Your task to perform on an android device: open a new tab in the chrome app Image 0: 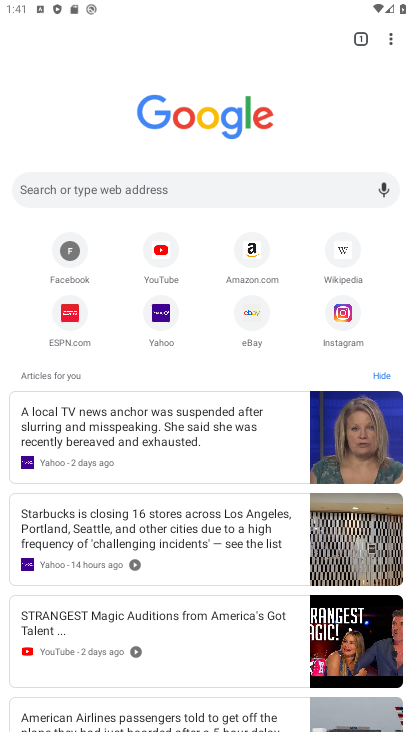
Step 0: click (391, 35)
Your task to perform on an android device: open a new tab in the chrome app Image 1: 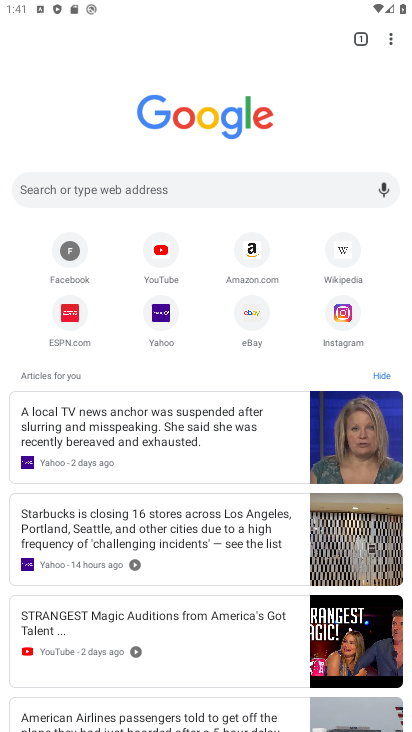
Step 1: click (392, 35)
Your task to perform on an android device: open a new tab in the chrome app Image 2: 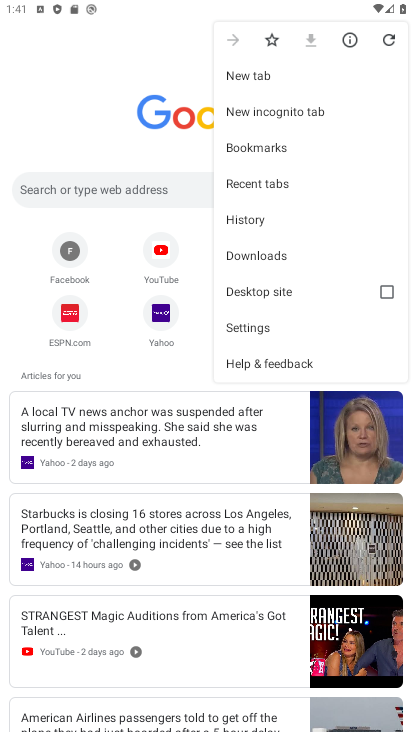
Step 2: click (308, 75)
Your task to perform on an android device: open a new tab in the chrome app Image 3: 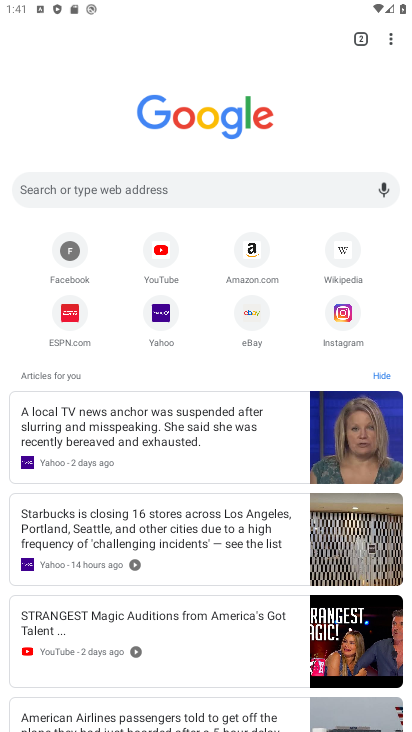
Step 3: task complete